Your task to perform on an android device: toggle notifications settings in the gmail app Image 0: 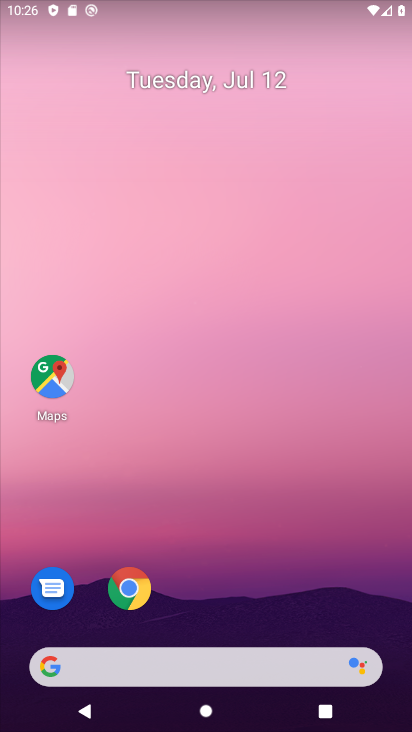
Step 0: drag from (216, 538) to (307, 94)
Your task to perform on an android device: toggle notifications settings in the gmail app Image 1: 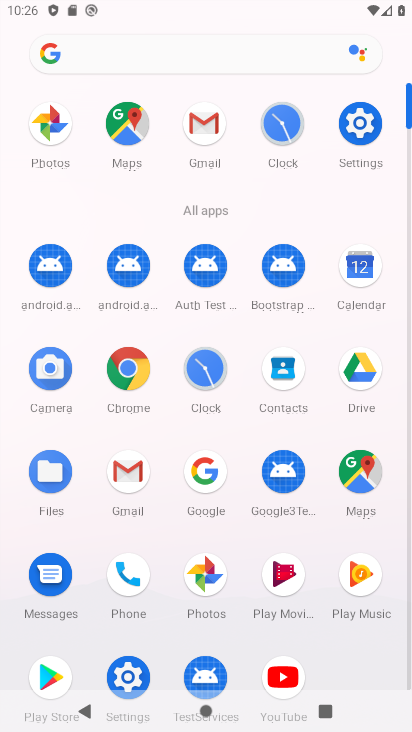
Step 1: click (122, 484)
Your task to perform on an android device: toggle notifications settings in the gmail app Image 2: 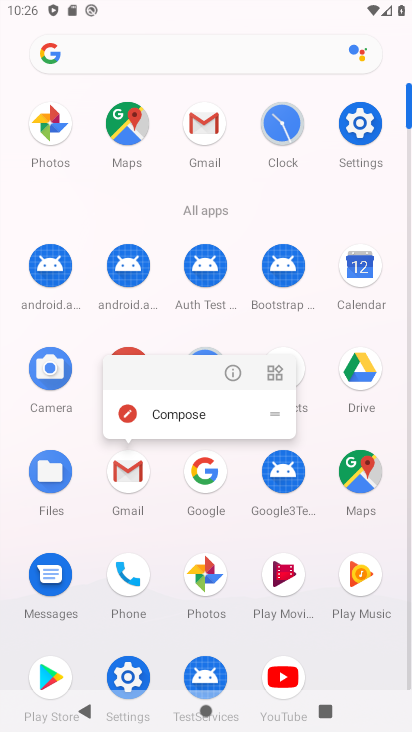
Step 2: click (122, 484)
Your task to perform on an android device: toggle notifications settings in the gmail app Image 3: 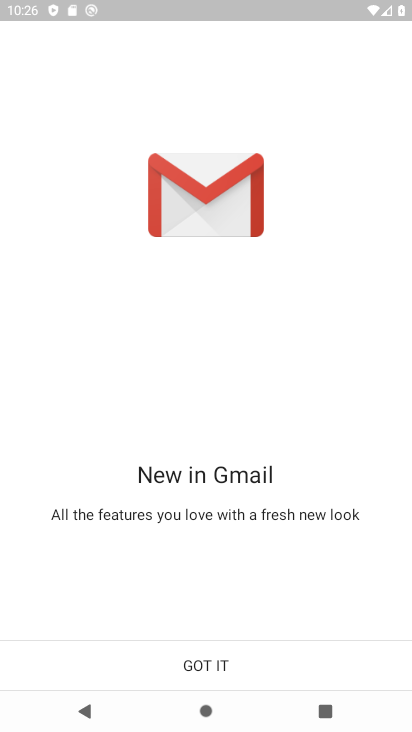
Step 3: click (210, 665)
Your task to perform on an android device: toggle notifications settings in the gmail app Image 4: 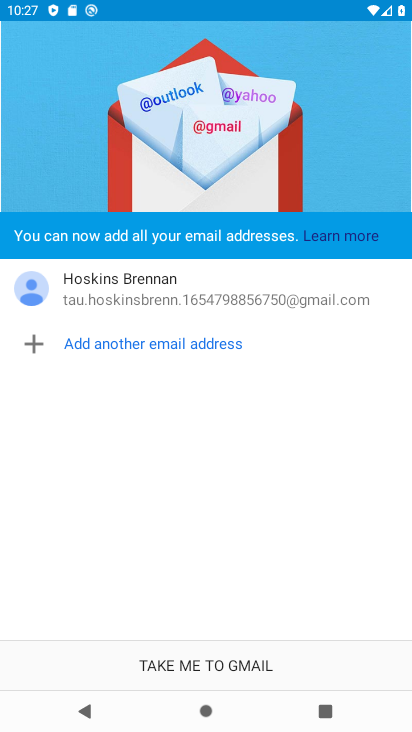
Step 4: click (227, 654)
Your task to perform on an android device: toggle notifications settings in the gmail app Image 5: 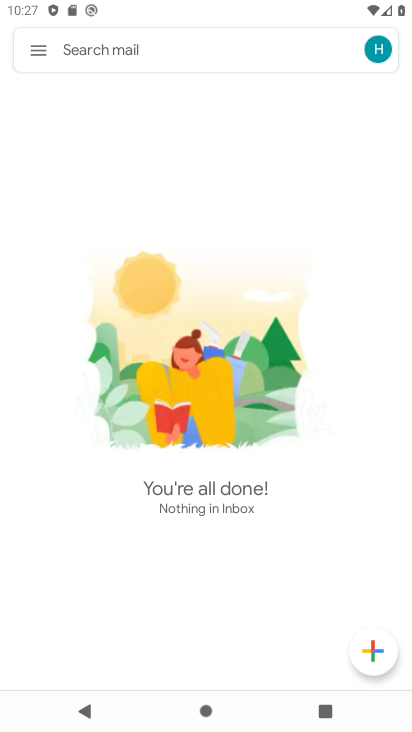
Step 5: click (46, 48)
Your task to perform on an android device: toggle notifications settings in the gmail app Image 6: 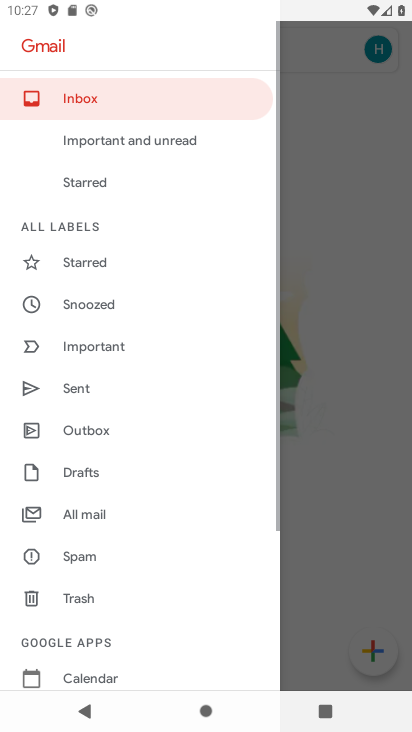
Step 6: drag from (95, 593) to (205, 146)
Your task to perform on an android device: toggle notifications settings in the gmail app Image 7: 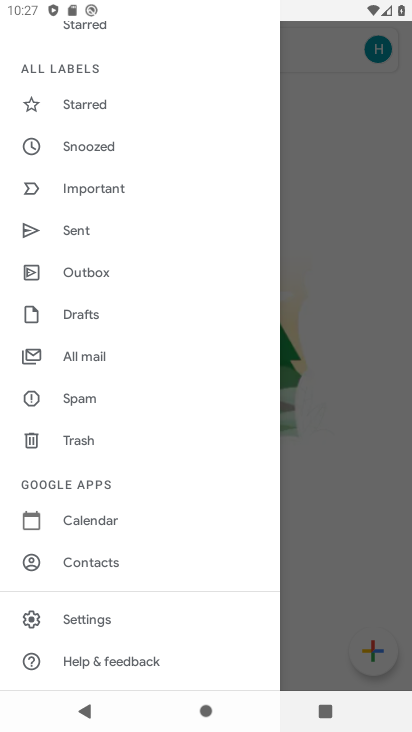
Step 7: click (133, 619)
Your task to perform on an android device: toggle notifications settings in the gmail app Image 8: 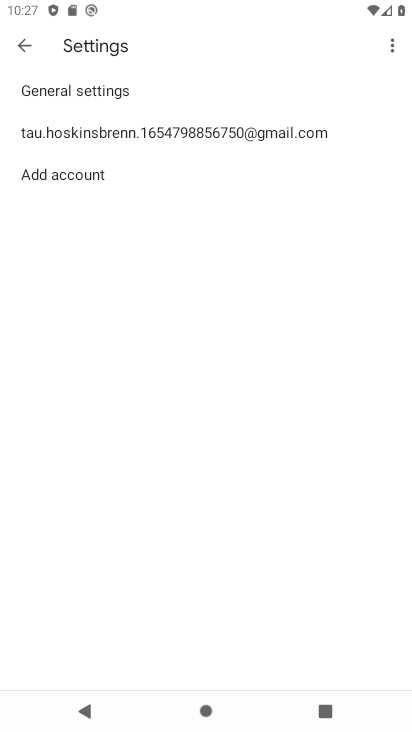
Step 8: click (273, 136)
Your task to perform on an android device: toggle notifications settings in the gmail app Image 9: 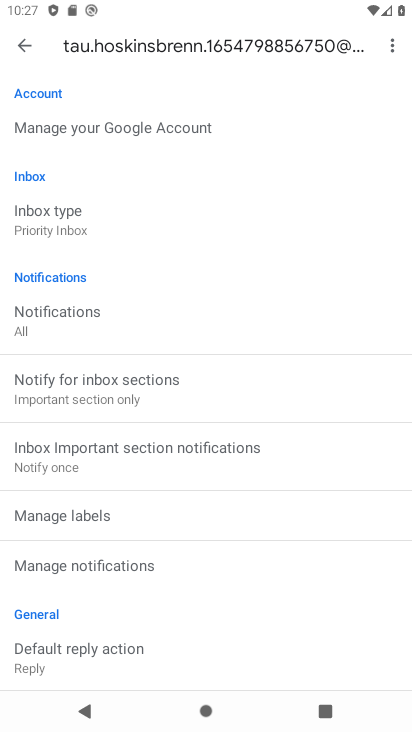
Step 9: click (138, 565)
Your task to perform on an android device: toggle notifications settings in the gmail app Image 10: 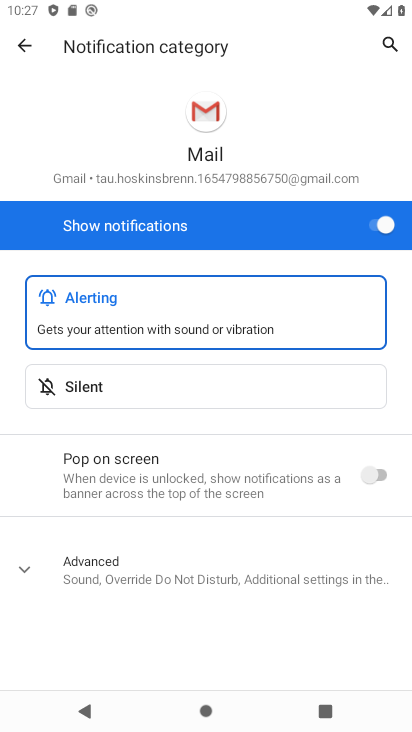
Step 10: click (375, 223)
Your task to perform on an android device: toggle notifications settings in the gmail app Image 11: 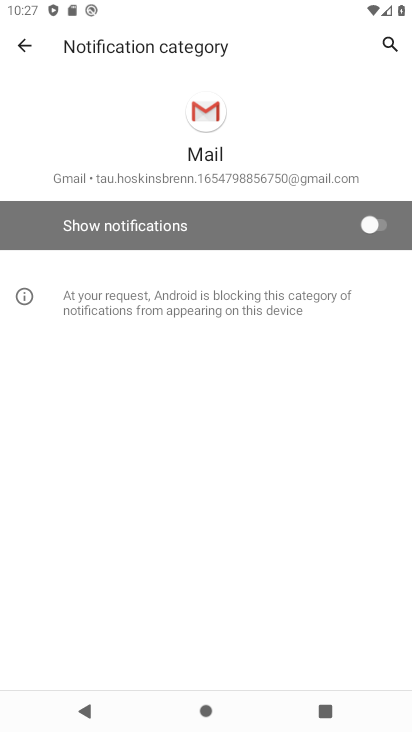
Step 11: task complete